Your task to perform on an android device: What is the news today? Image 0: 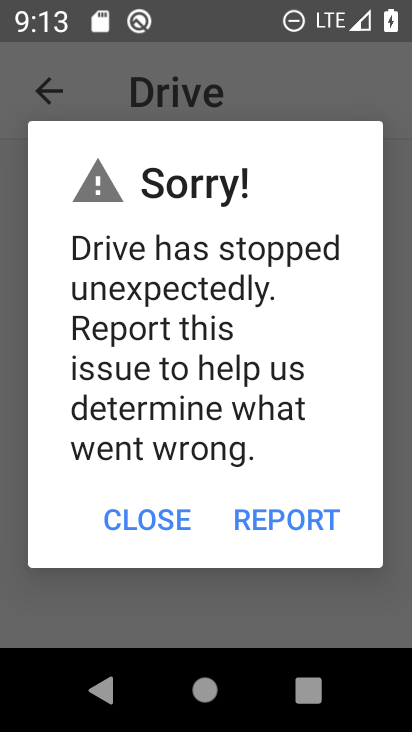
Step 0: press home button
Your task to perform on an android device: What is the news today? Image 1: 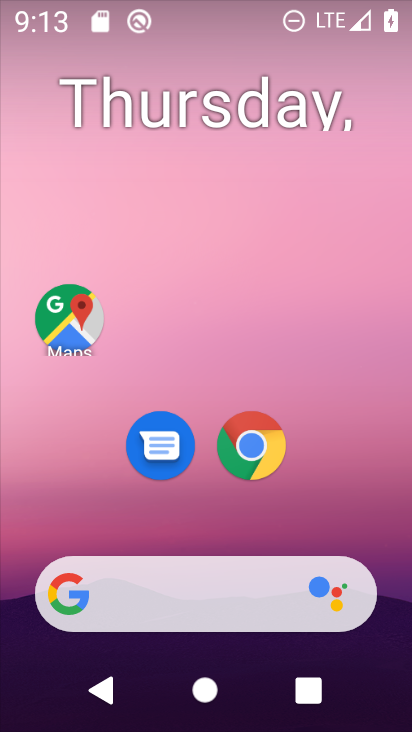
Step 1: drag from (391, 643) to (342, 142)
Your task to perform on an android device: What is the news today? Image 2: 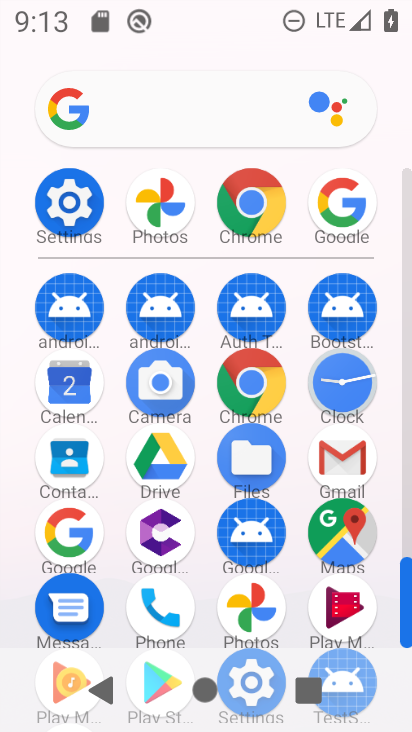
Step 2: click (64, 529)
Your task to perform on an android device: What is the news today? Image 3: 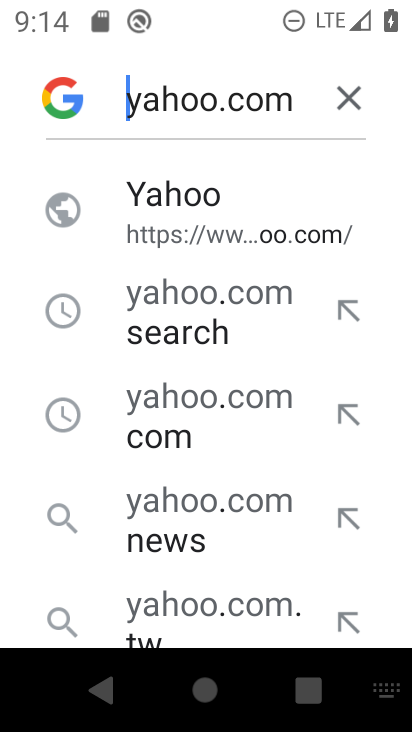
Step 3: click (356, 95)
Your task to perform on an android device: What is the news today? Image 4: 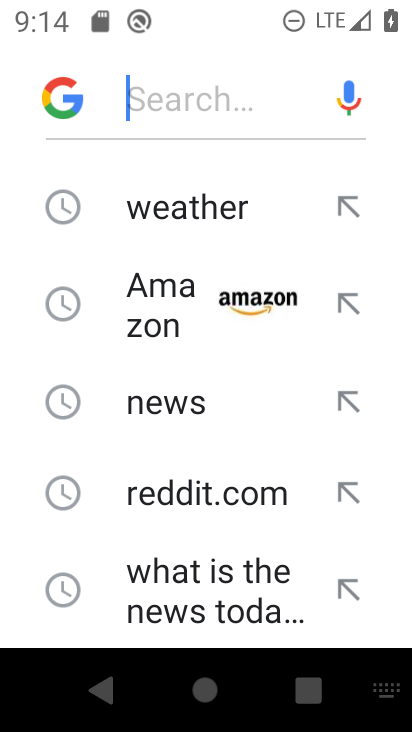
Step 4: click (202, 595)
Your task to perform on an android device: What is the news today? Image 5: 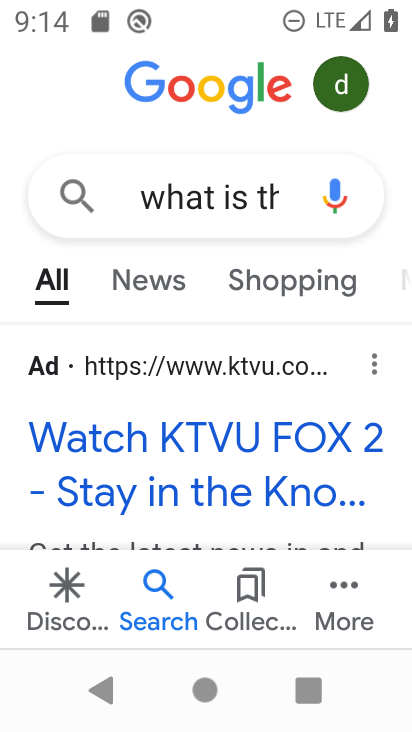
Step 5: task complete